Your task to perform on an android device: Search for vegetarian restaurants on Maps Image 0: 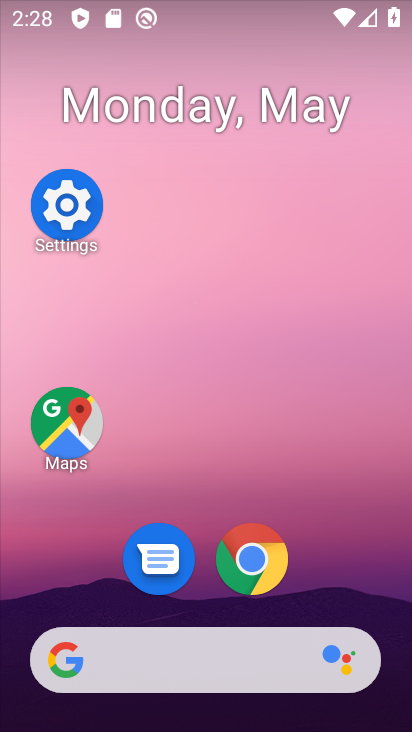
Step 0: click (41, 437)
Your task to perform on an android device: Search for vegetarian restaurants on Maps Image 1: 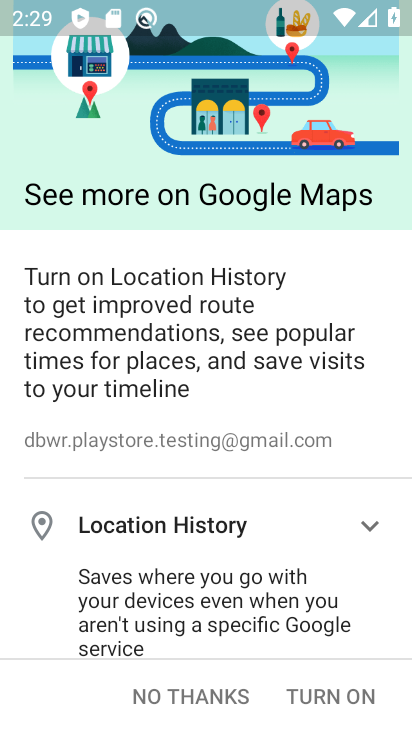
Step 1: click (317, 701)
Your task to perform on an android device: Search for vegetarian restaurants on Maps Image 2: 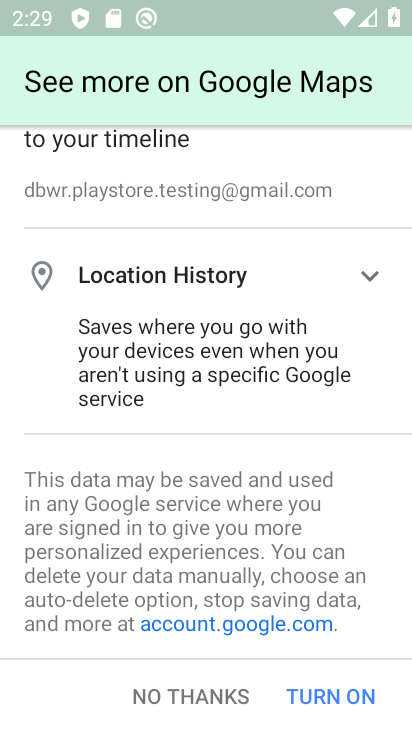
Step 2: click (319, 701)
Your task to perform on an android device: Search for vegetarian restaurants on Maps Image 3: 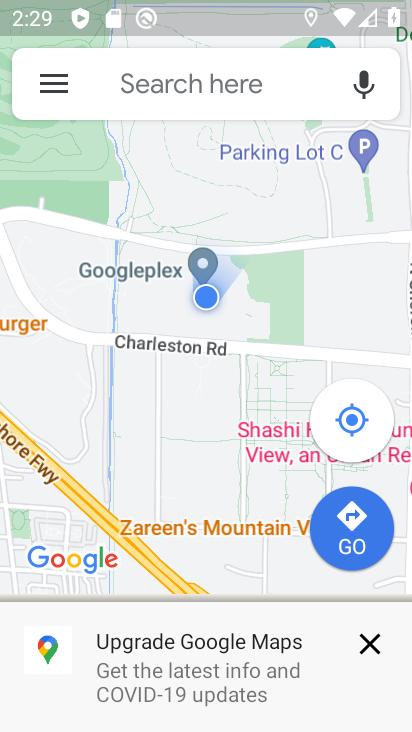
Step 3: click (182, 97)
Your task to perform on an android device: Search for vegetarian restaurants on Maps Image 4: 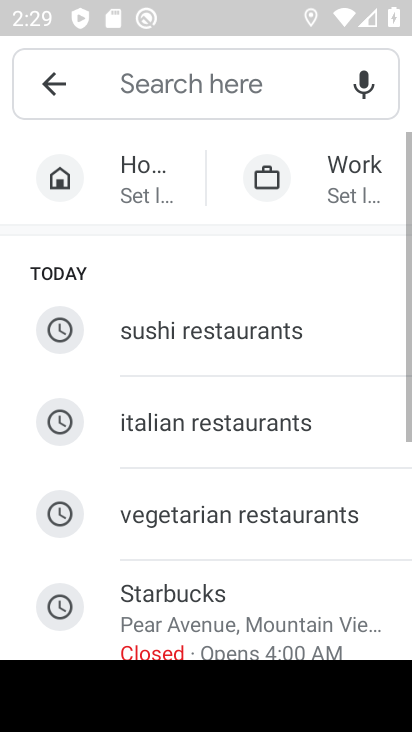
Step 4: click (222, 506)
Your task to perform on an android device: Search for vegetarian restaurants on Maps Image 5: 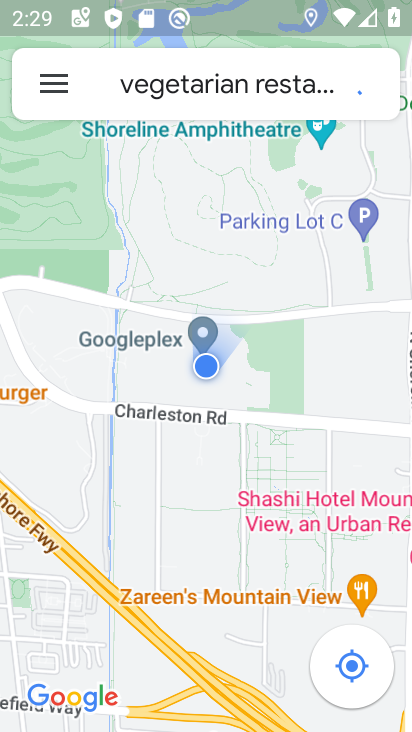
Step 5: task complete